Your task to perform on an android device: turn on improve location accuracy Image 0: 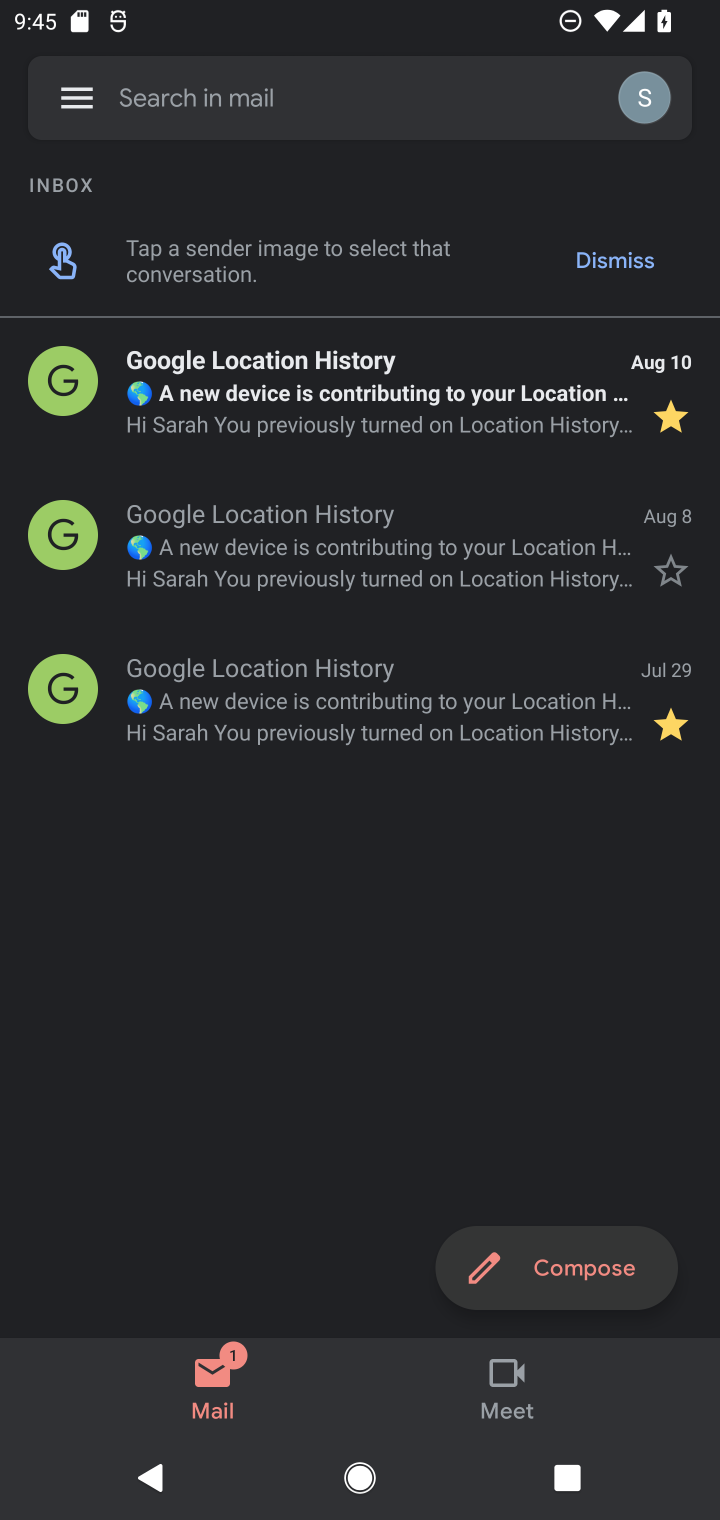
Step 0: press home button
Your task to perform on an android device: turn on improve location accuracy Image 1: 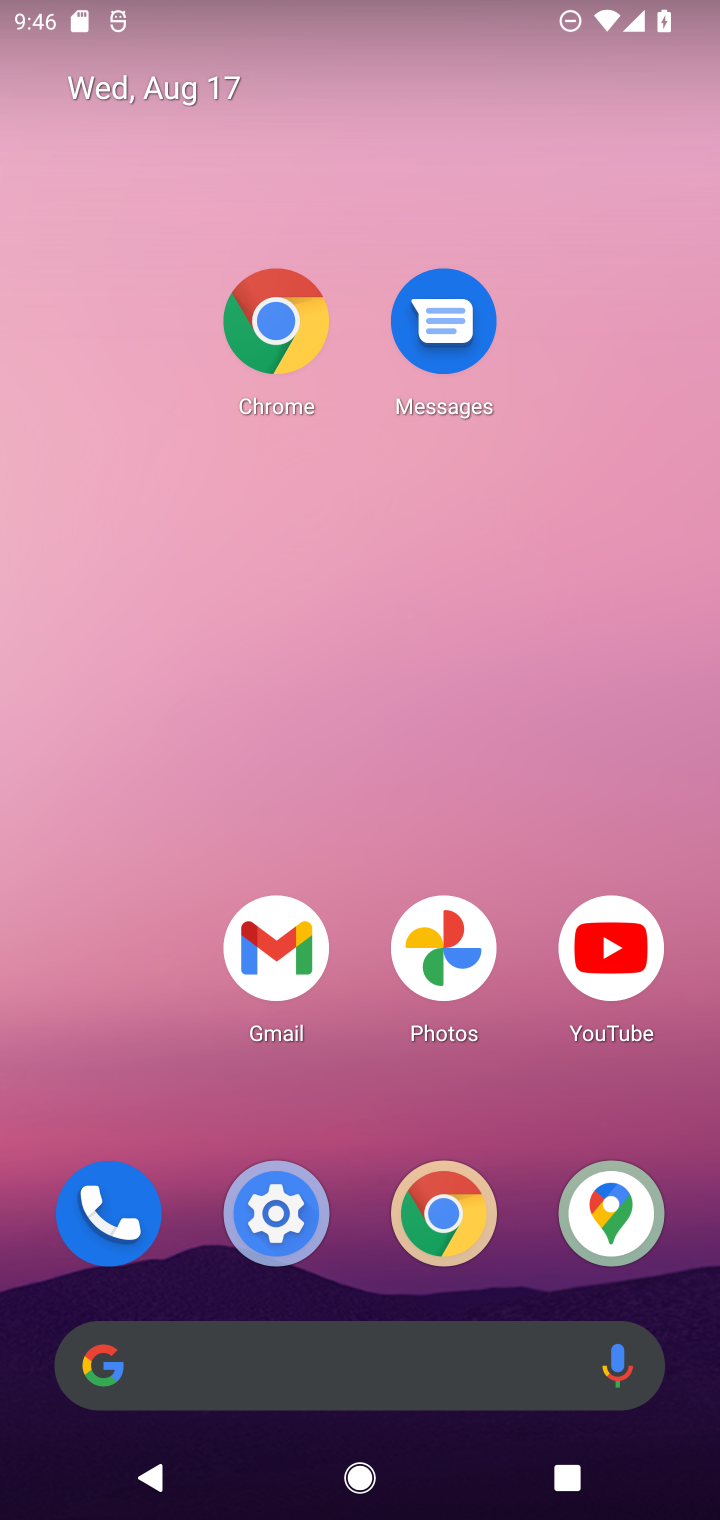
Step 1: click (283, 1255)
Your task to perform on an android device: turn on improve location accuracy Image 2: 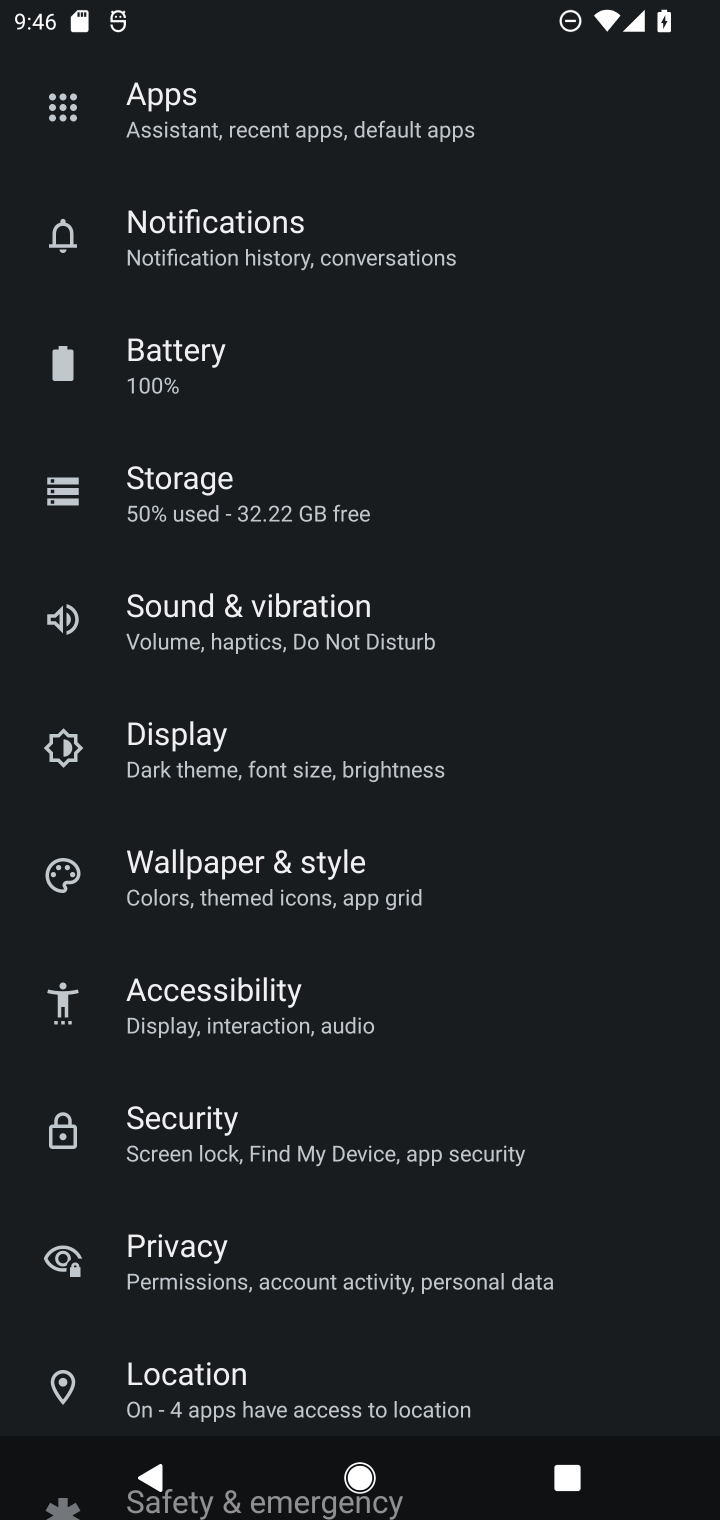
Step 2: click (273, 1396)
Your task to perform on an android device: turn on improve location accuracy Image 3: 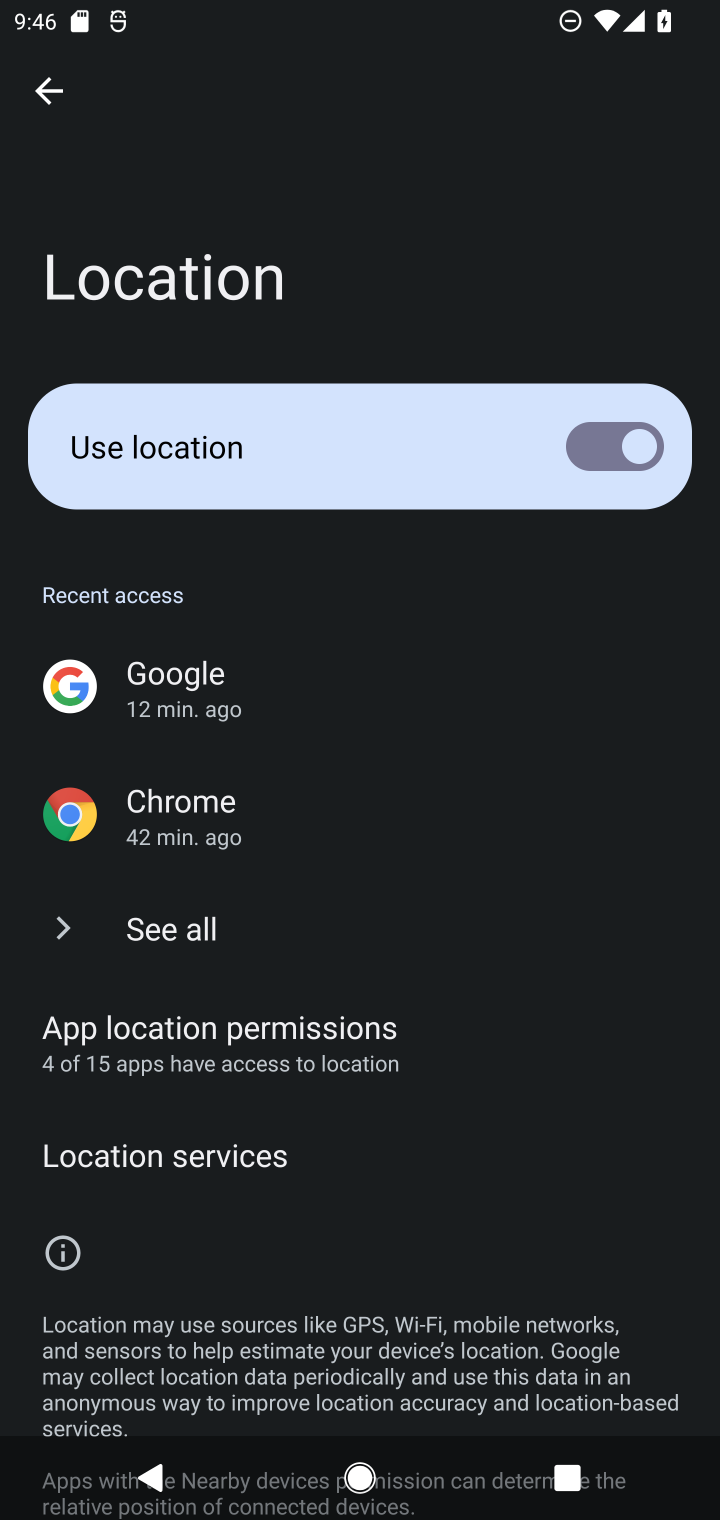
Step 3: task complete